Your task to perform on an android device: Open my contact list Image 0: 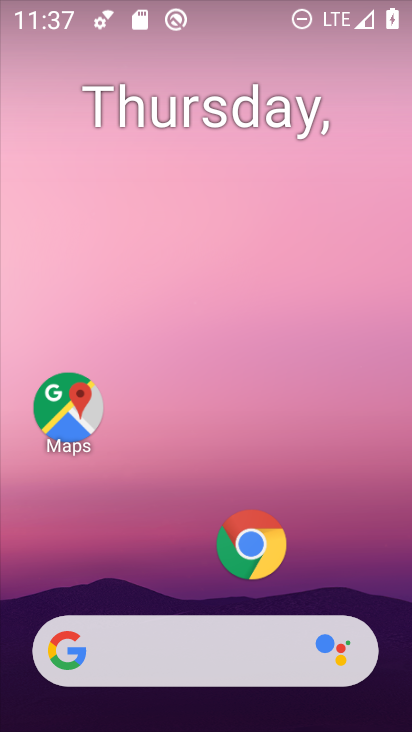
Step 0: drag from (205, 597) to (207, 10)
Your task to perform on an android device: Open my contact list Image 1: 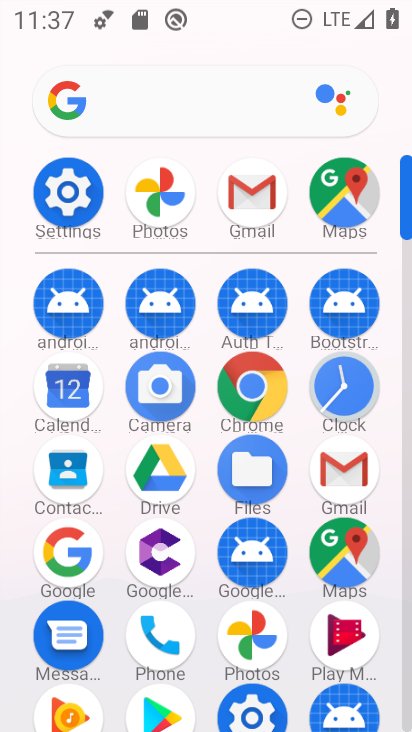
Step 1: click (171, 653)
Your task to perform on an android device: Open my contact list Image 2: 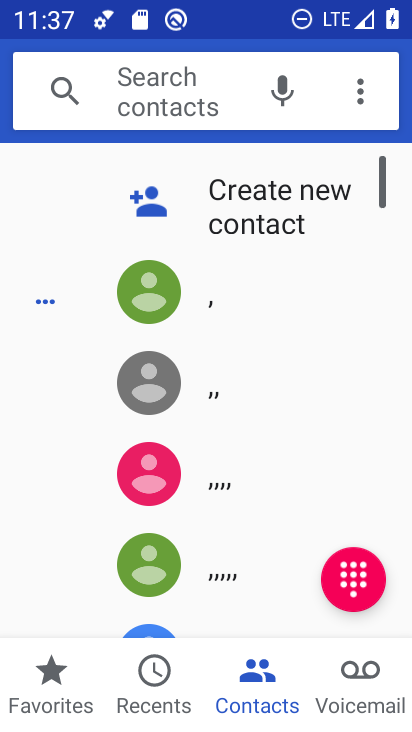
Step 2: task complete